Your task to perform on an android device: open app "Facebook Lite" (install if not already installed) and enter user name: "suppers@inbox.com" and password: "downplayed" Image 0: 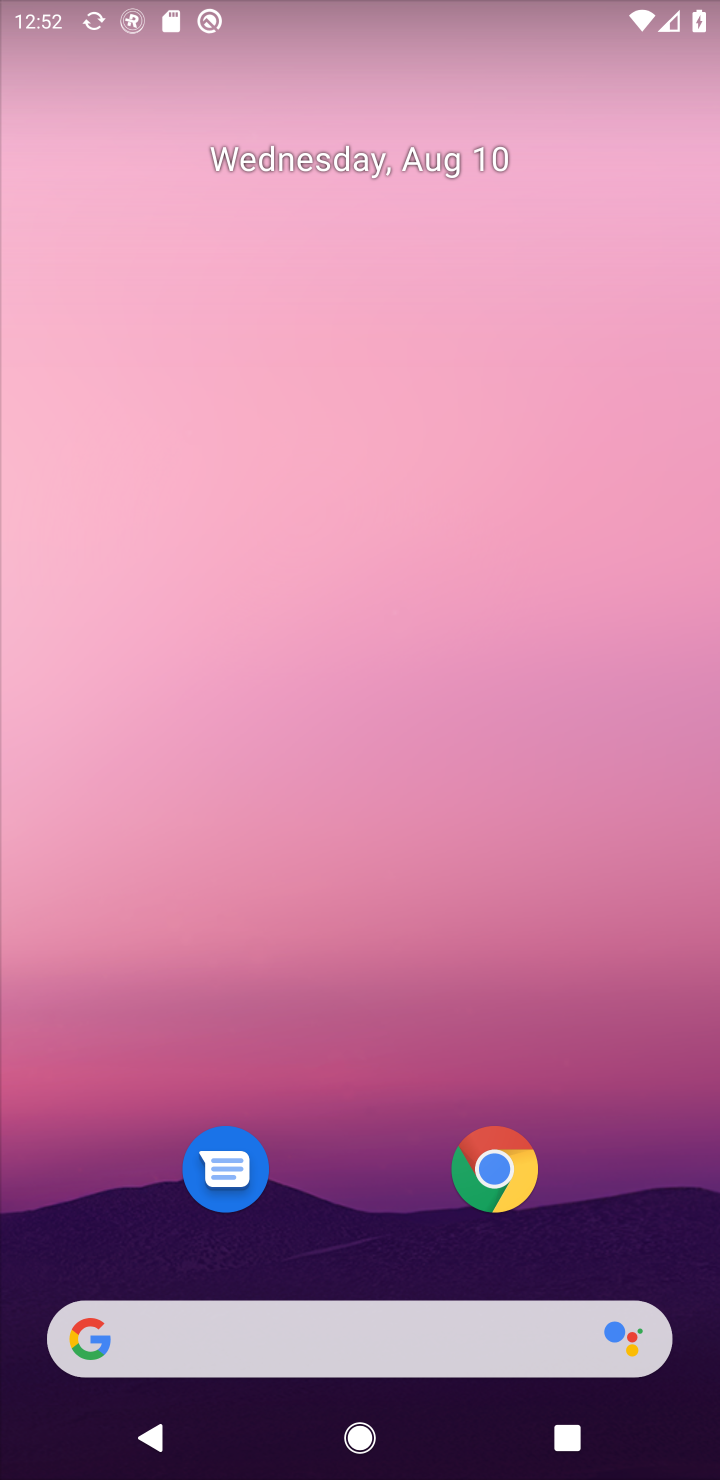
Step 0: press home button
Your task to perform on an android device: open app "Facebook Lite" (install if not already installed) and enter user name: "suppers@inbox.com" and password: "downplayed" Image 1: 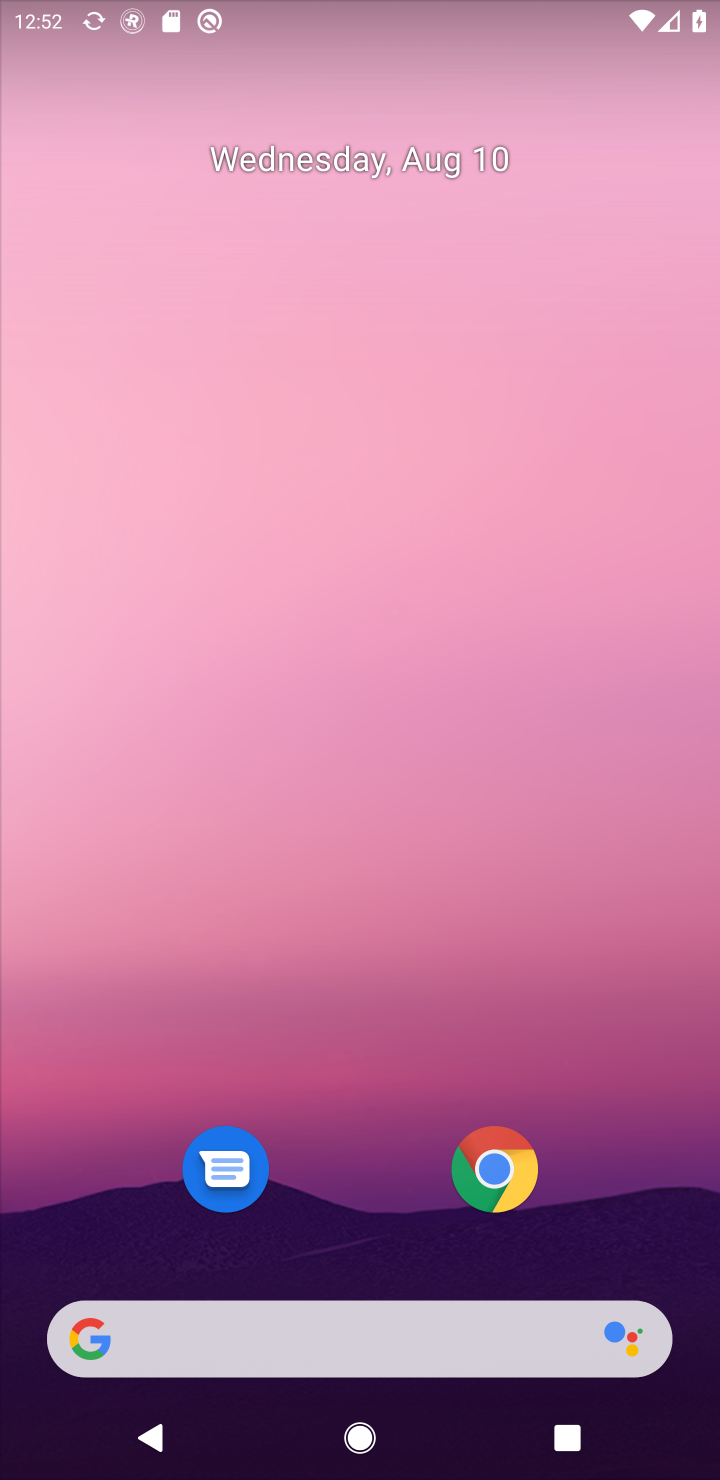
Step 1: drag from (598, 1217) to (633, 129)
Your task to perform on an android device: open app "Facebook Lite" (install if not already installed) and enter user name: "suppers@inbox.com" and password: "downplayed" Image 2: 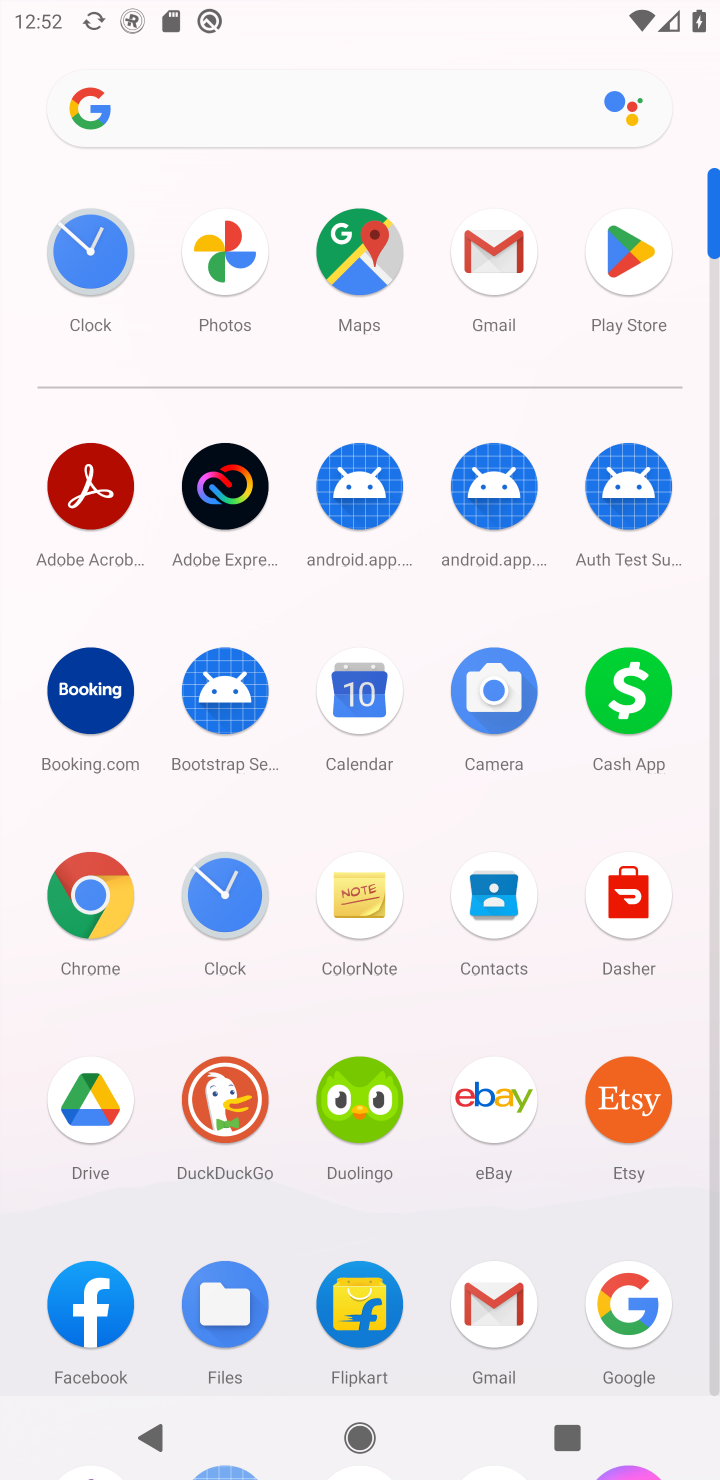
Step 2: click (627, 272)
Your task to perform on an android device: open app "Facebook Lite" (install if not already installed) and enter user name: "suppers@inbox.com" and password: "downplayed" Image 3: 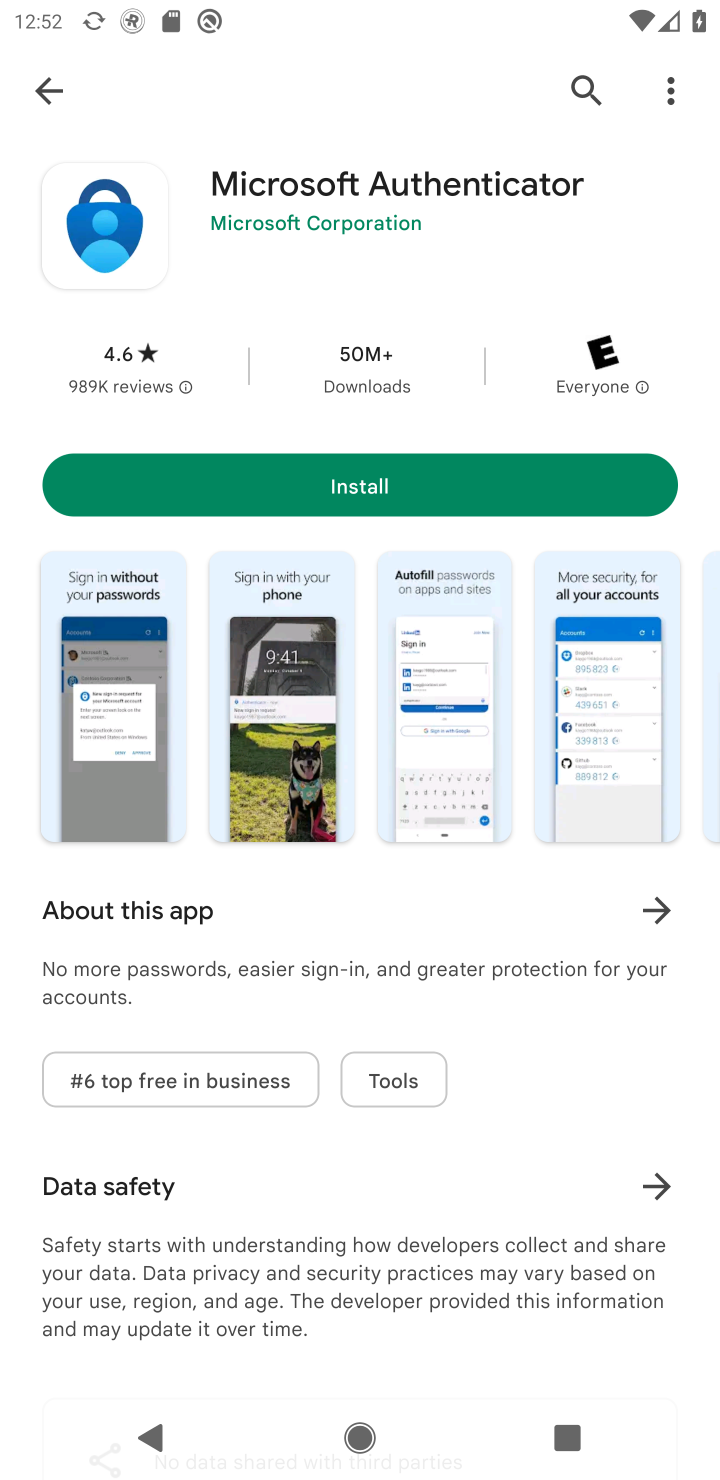
Step 3: click (570, 80)
Your task to perform on an android device: open app "Facebook Lite" (install if not already installed) and enter user name: "suppers@inbox.com" and password: "downplayed" Image 4: 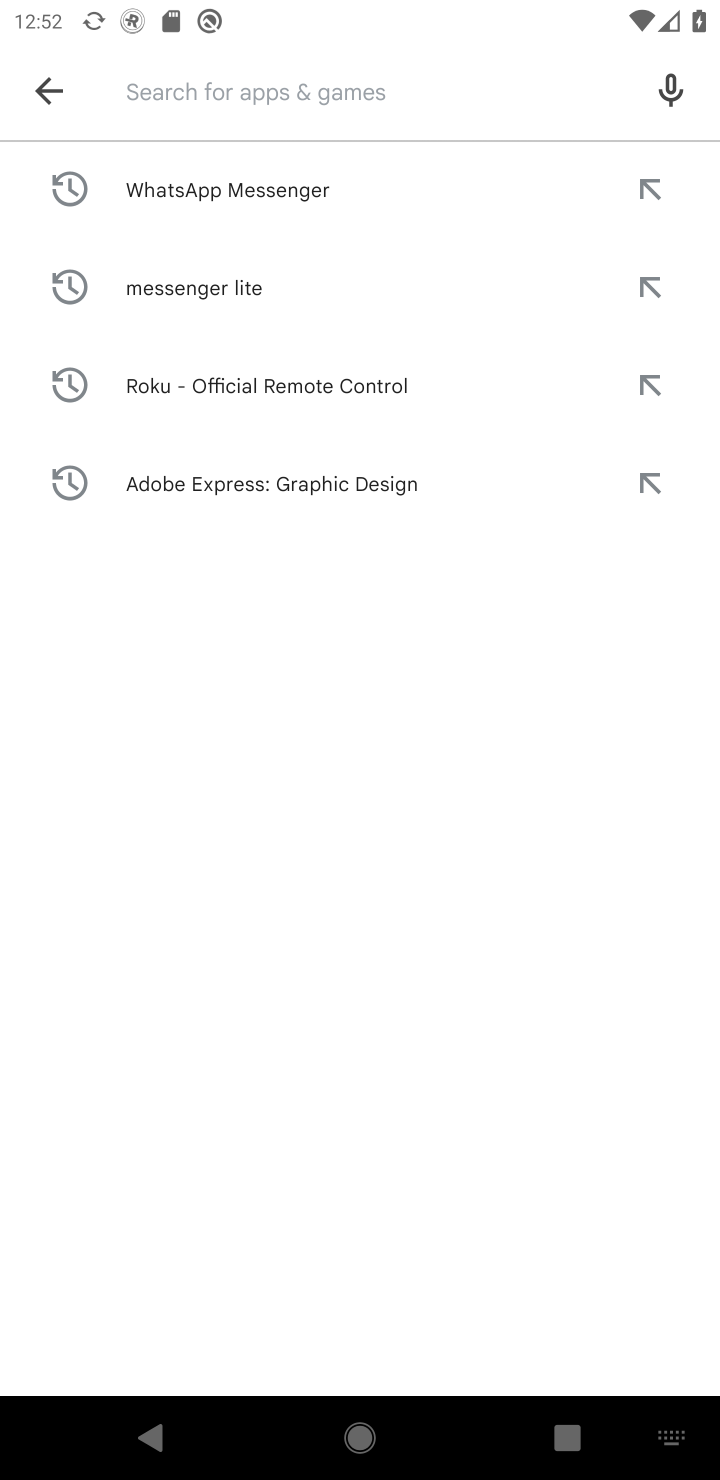
Step 4: press enter
Your task to perform on an android device: open app "Facebook Lite" (install if not already installed) and enter user name: "suppers@inbox.com" and password: "downplayed" Image 5: 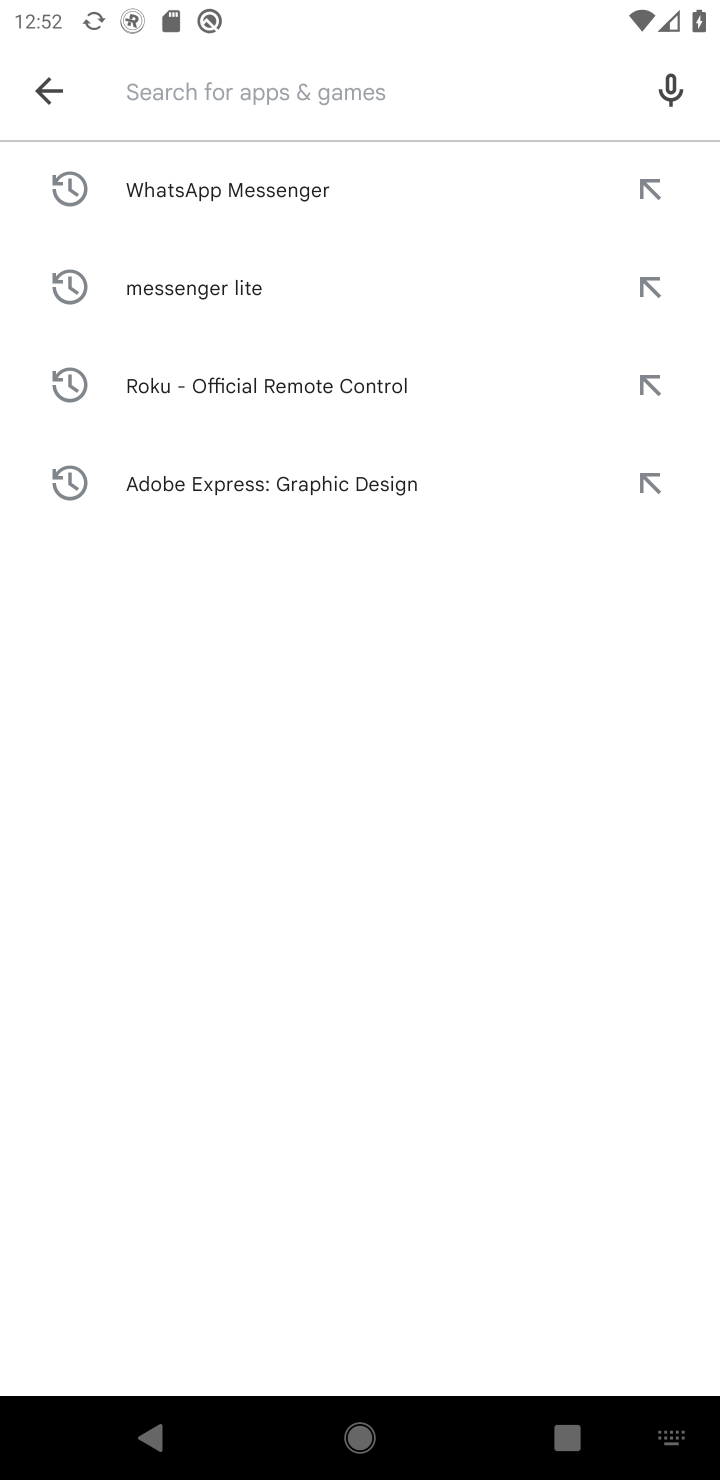
Step 5: type "facebook ;lite"
Your task to perform on an android device: open app "Facebook Lite" (install if not already installed) and enter user name: "suppers@inbox.com" and password: "downplayed" Image 6: 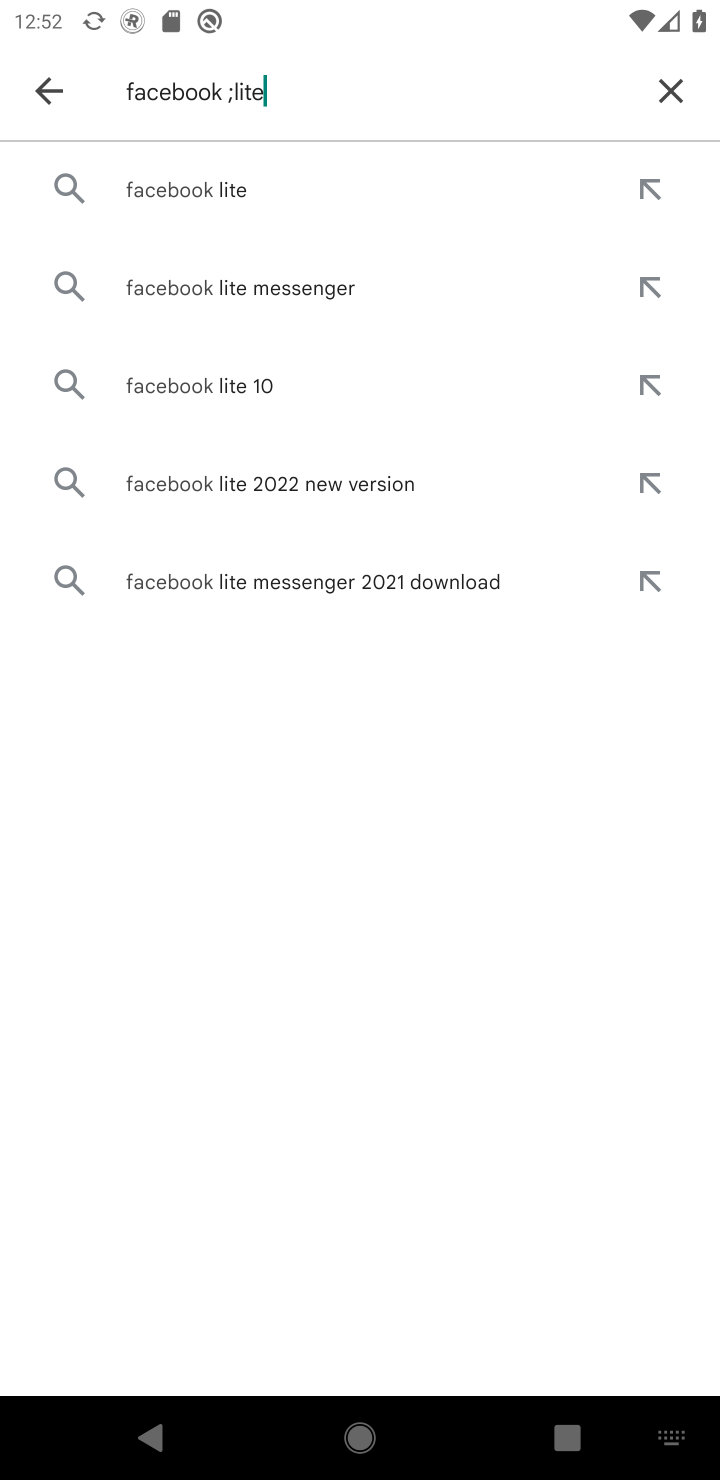
Step 6: click (282, 184)
Your task to perform on an android device: open app "Facebook Lite" (install if not already installed) and enter user name: "suppers@inbox.com" and password: "downplayed" Image 7: 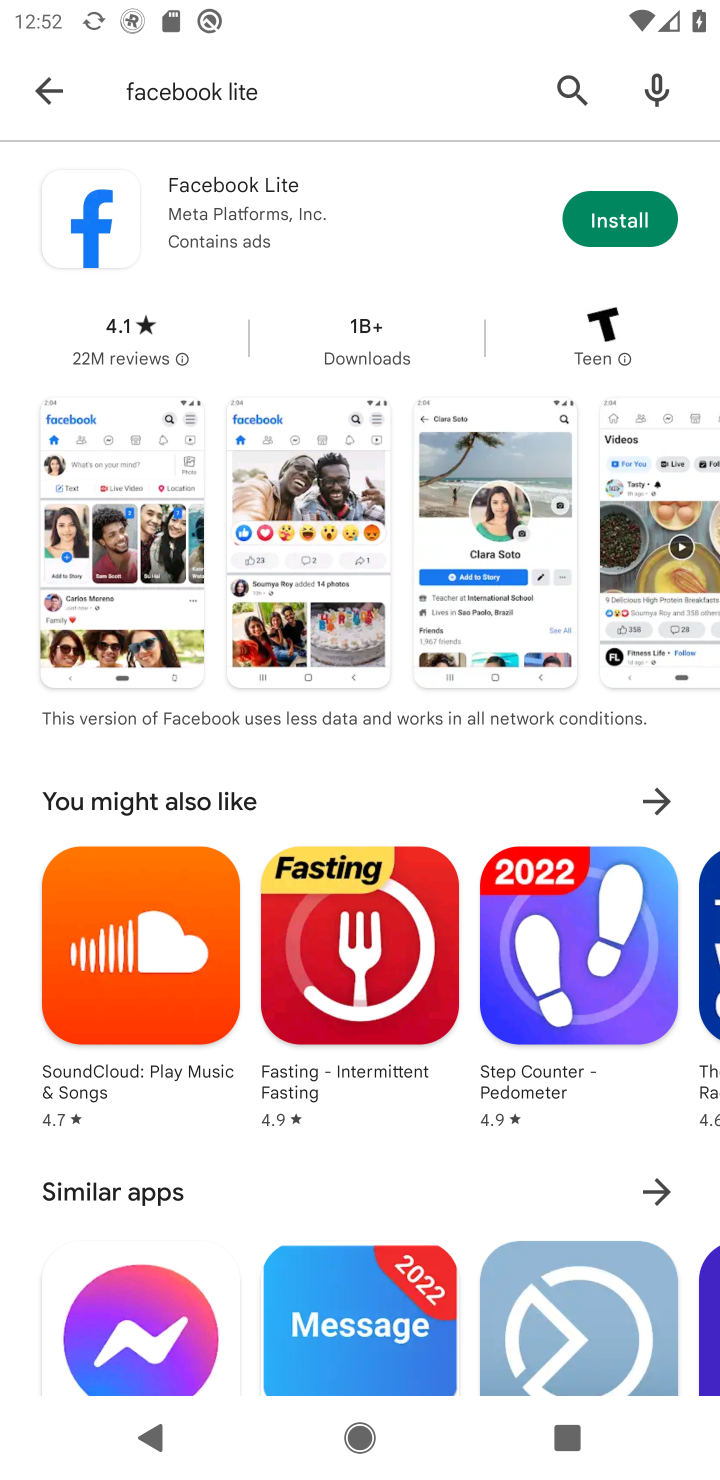
Step 7: click (638, 215)
Your task to perform on an android device: open app "Facebook Lite" (install if not already installed) and enter user name: "suppers@inbox.com" and password: "downplayed" Image 8: 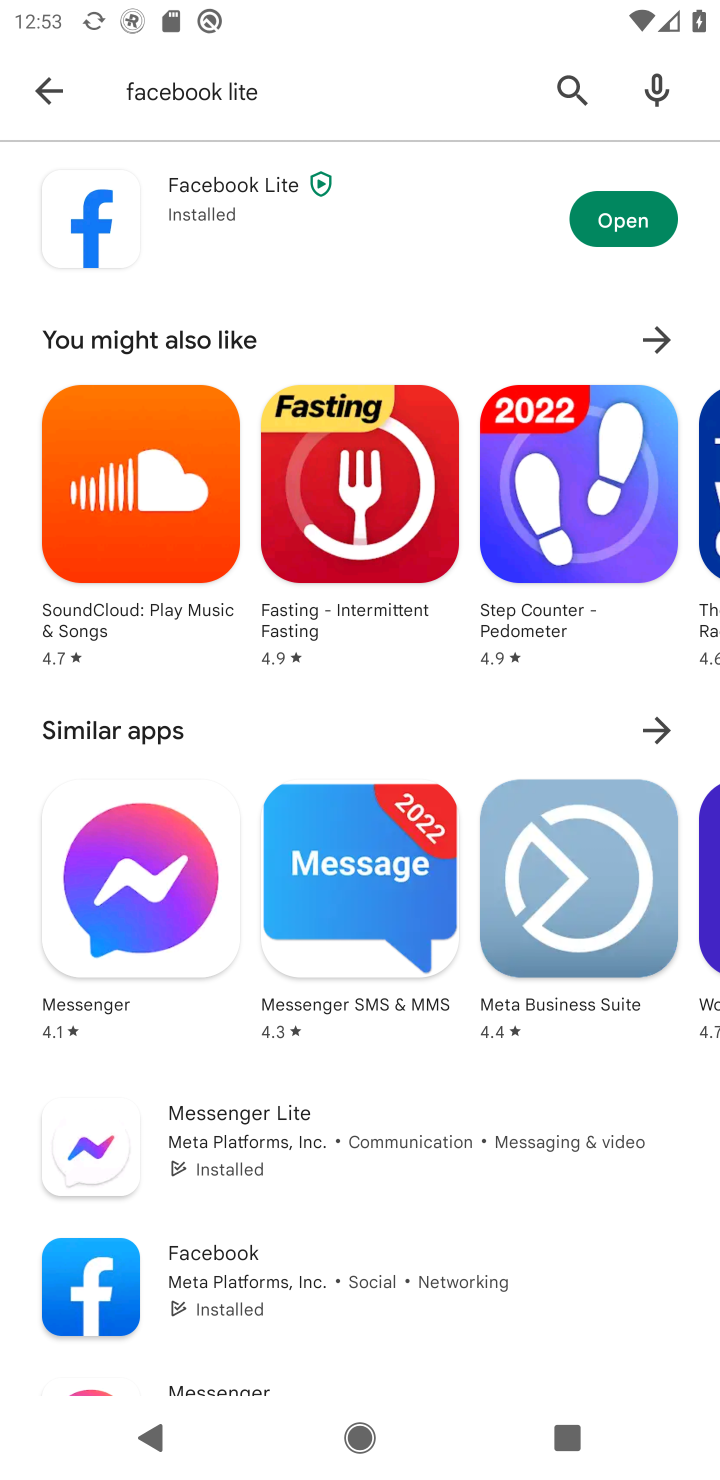
Step 8: click (624, 227)
Your task to perform on an android device: open app "Facebook Lite" (install if not already installed) and enter user name: "suppers@inbox.com" and password: "downplayed" Image 9: 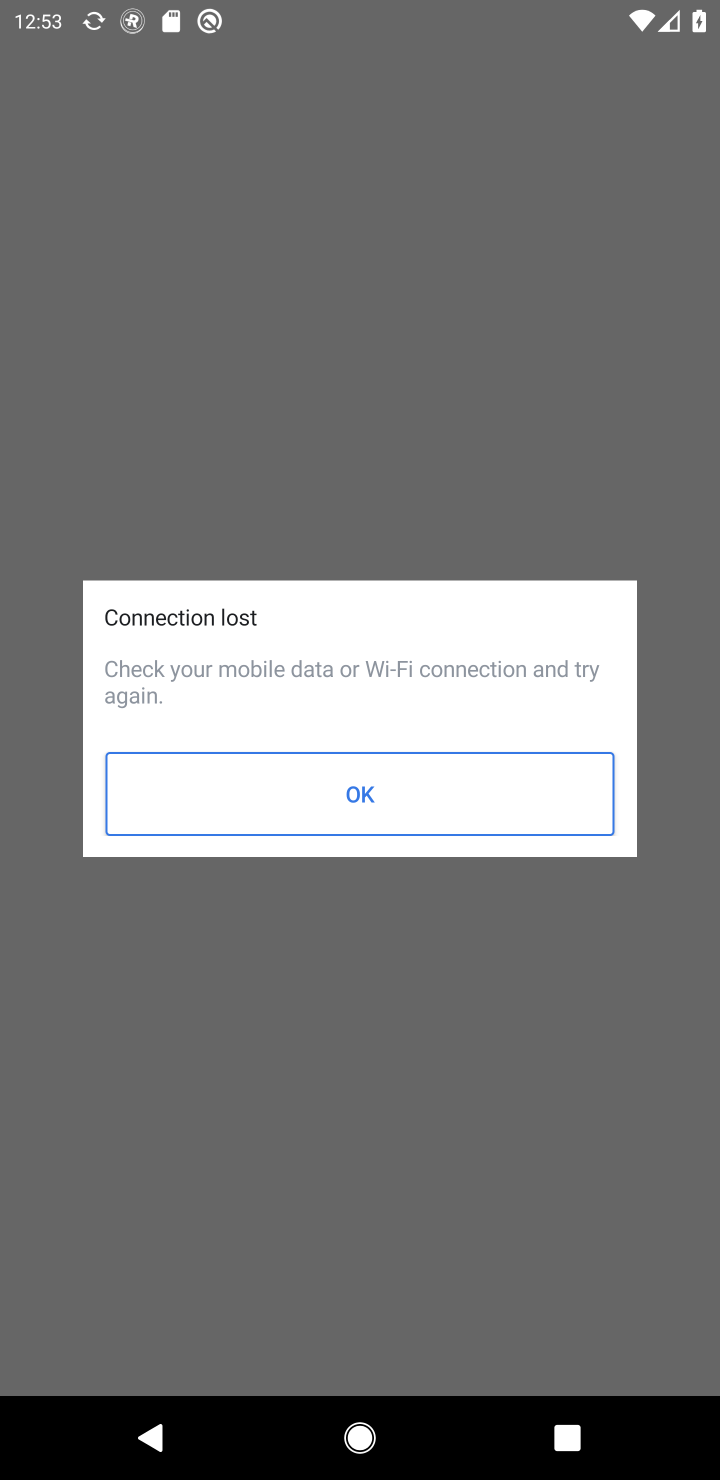
Step 9: task complete